Your task to perform on an android device: Go to location settings Image 0: 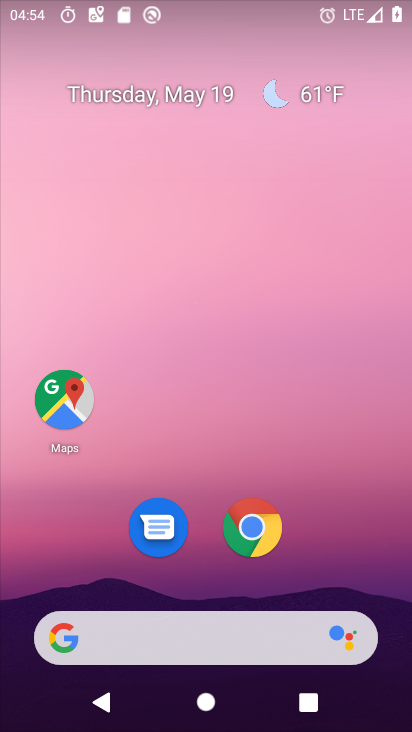
Step 0: drag from (174, 561) to (275, 96)
Your task to perform on an android device: Go to location settings Image 1: 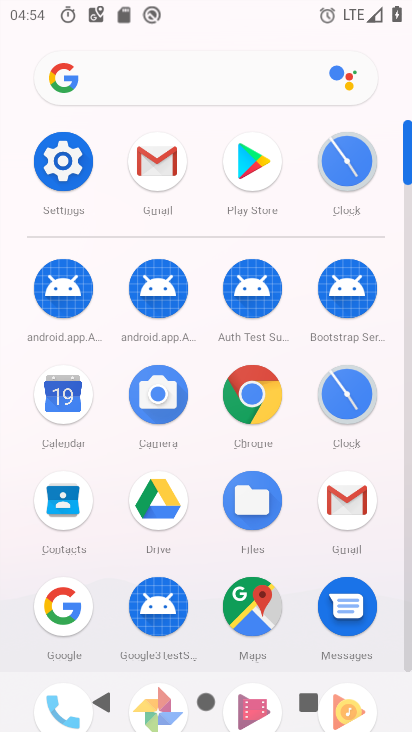
Step 1: click (69, 160)
Your task to perform on an android device: Go to location settings Image 2: 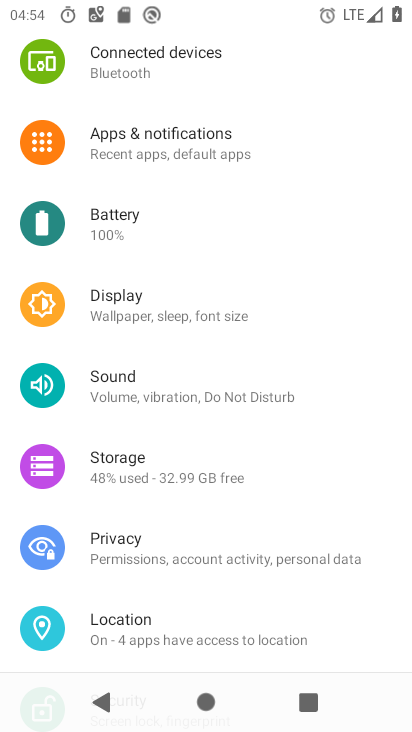
Step 2: click (125, 626)
Your task to perform on an android device: Go to location settings Image 3: 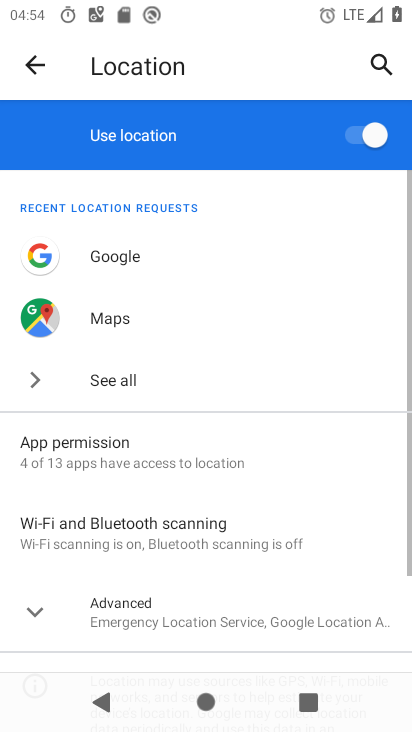
Step 3: task complete